Your task to perform on an android device: turn on the 24-hour format for clock Image 0: 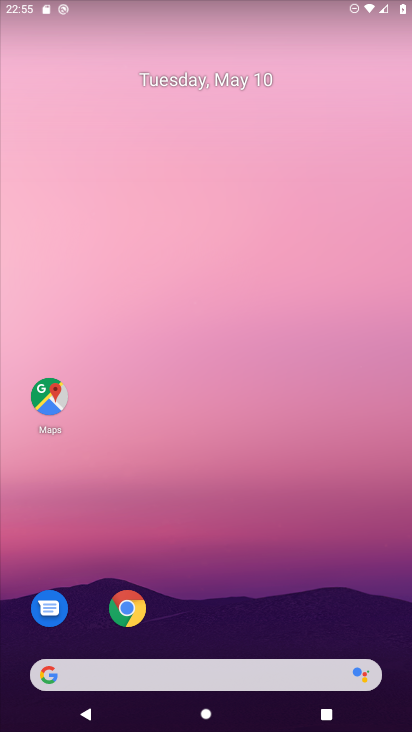
Step 0: drag from (242, 484) to (227, 146)
Your task to perform on an android device: turn on the 24-hour format for clock Image 1: 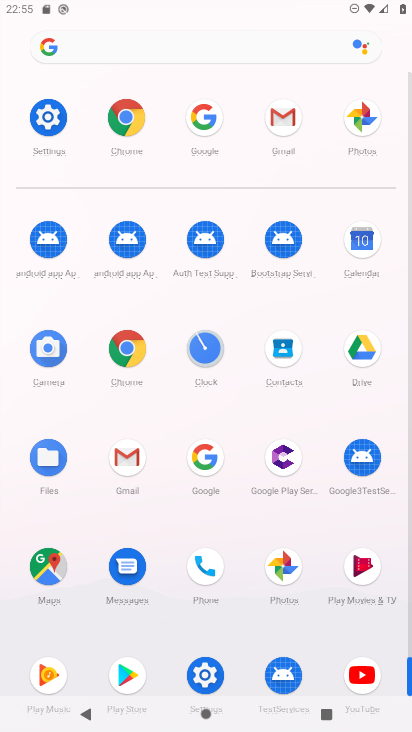
Step 1: click (204, 348)
Your task to perform on an android device: turn on the 24-hour format for clock Image 2: 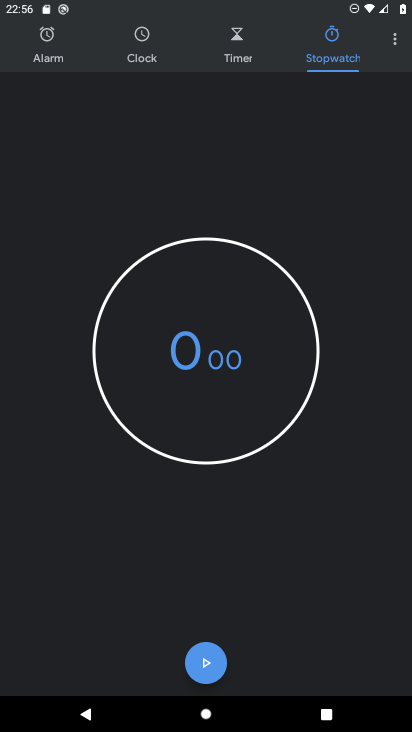
Step 2: click (393, 41)
Your task to perform on an android device: turn on the 24-hour format for clock Image 3: 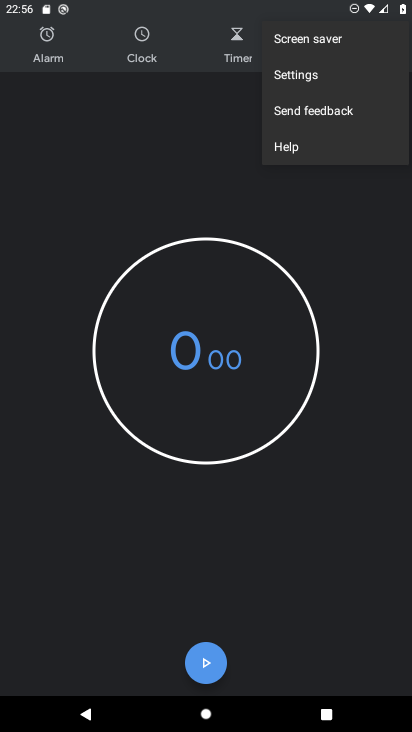
Step 3: click (334, 76)
Your task to perform on an android device: turn on the 24-hour format for clock Image 4: 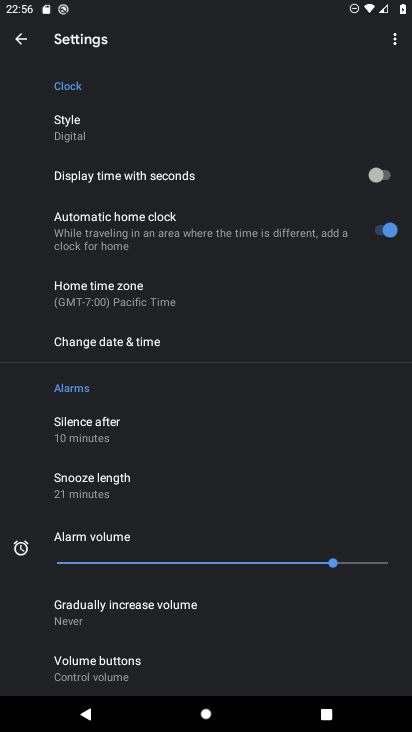
Step 4: click (111, 339)
Your task to perform on an android device: turn on the 24-hour format for clock Image 5: 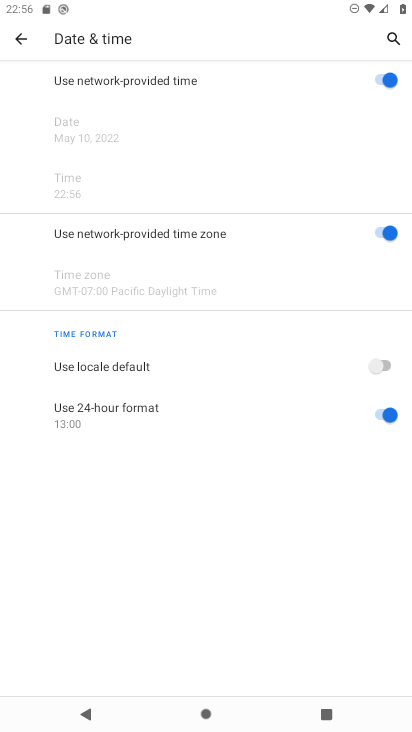
Step 5: task complete